Your task to perform on an android device: turn off improve location accuracy Image 0: 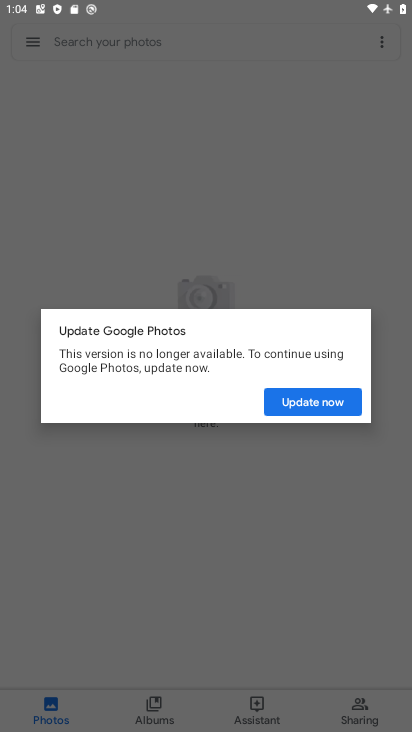
Step 0: press home button
Your task to perform on an android device: turn off improve location accuracy Image 1: 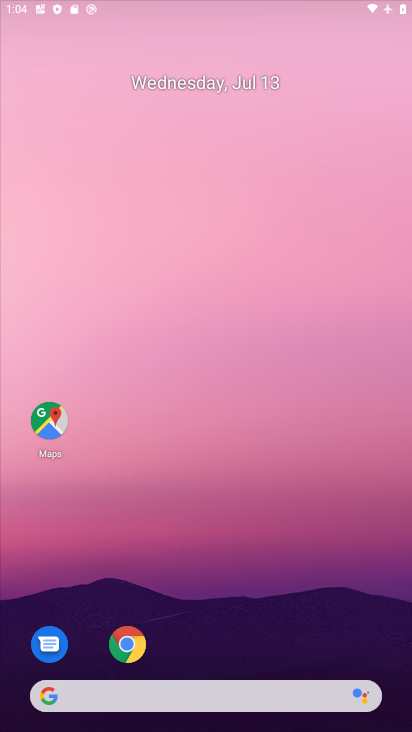
Step 1: drag from (288, 417) to (250, 26)
Your task to perform on an android device: turn off improve location accuracy Image 2: 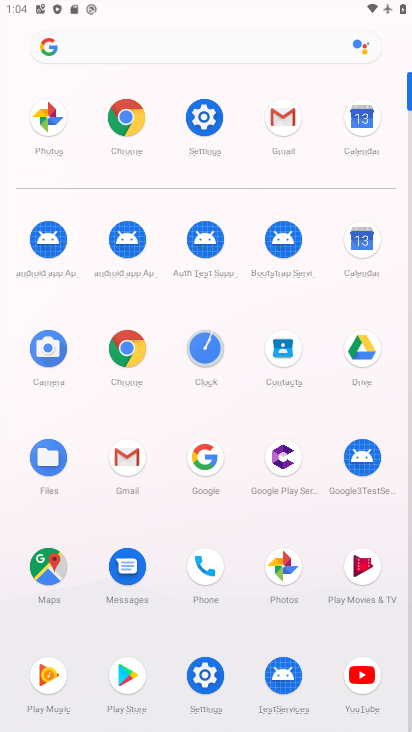
Step 2: click (205, 111)
Your task to perform on an android device: turn off improve location accuracy Image 3: 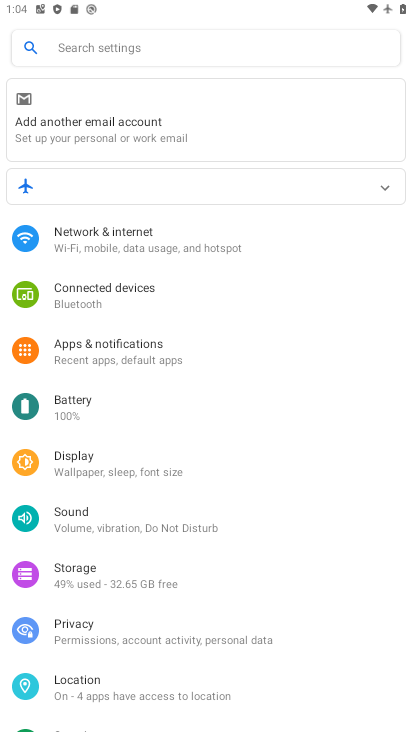
Step 3: click (141, 701)
Your task to perform on an android device: turn off improve location accuracy Image 4: 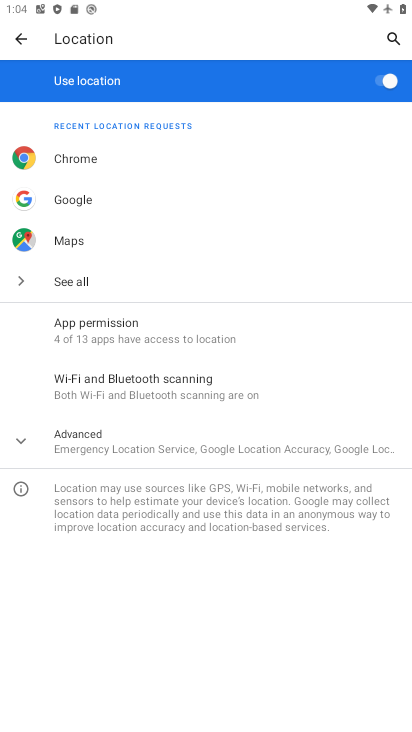
Step 4: click (149, 446)
Your task to perform on an android device: turn off improve location accuracy Image 5: 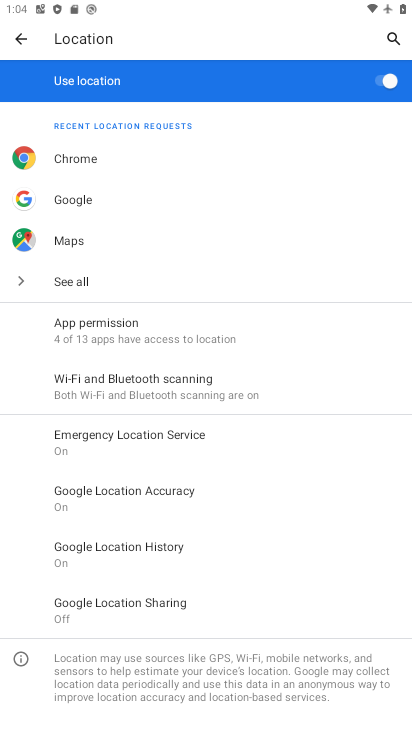
Step 5: click (161, 497)
Your task to perform on an android device: turn off improve location accuracy Image 6: 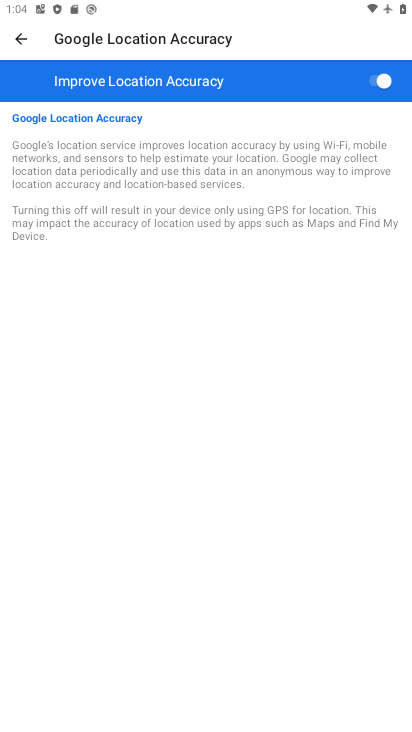
Step 6: click (372, 75)
Your task to perform on an android device: turn off improve location accuracy Image 7: 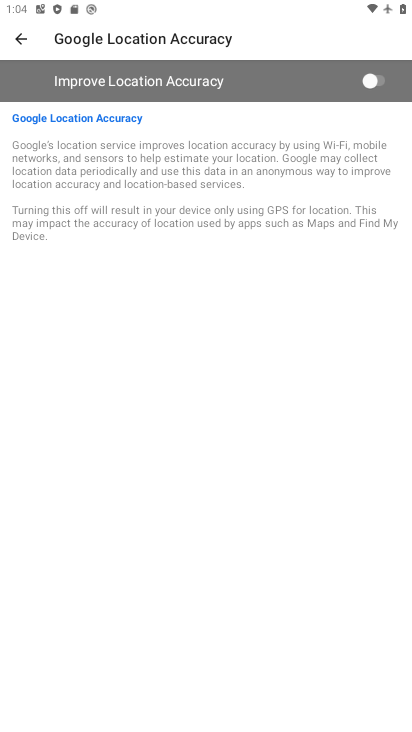
Step 7: task complete